Your task to perform on an android device: empty trash in the gmail app Image 0: 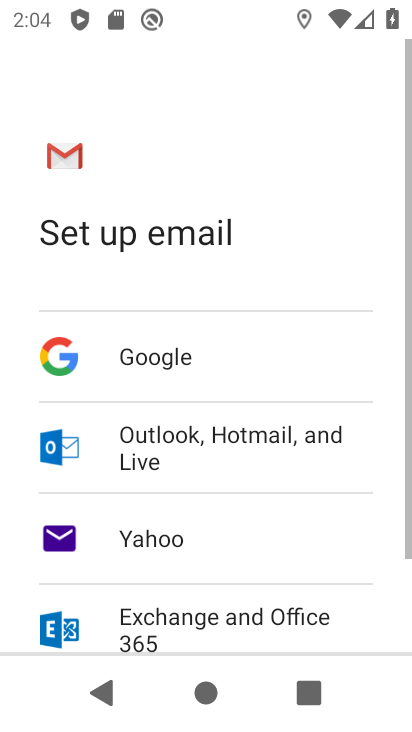
Step 0: press home button
Your task to perform on an android device: empty trash in the gmail app Image 1: 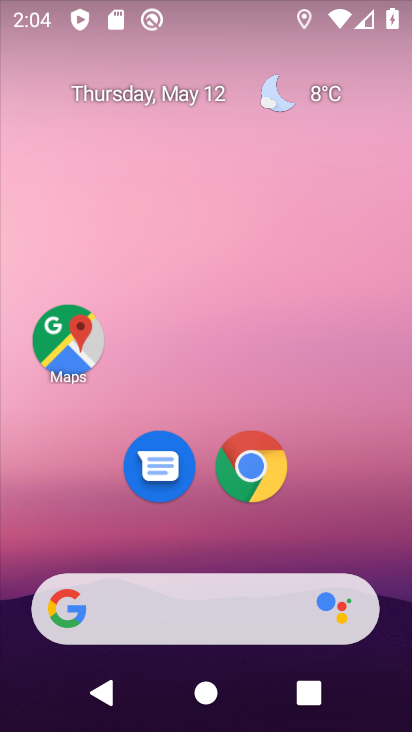
Step 1: drag from (318, 521) to (180, 126)
Your task to perform on an android device: empty trash in the gmail app Image 2: 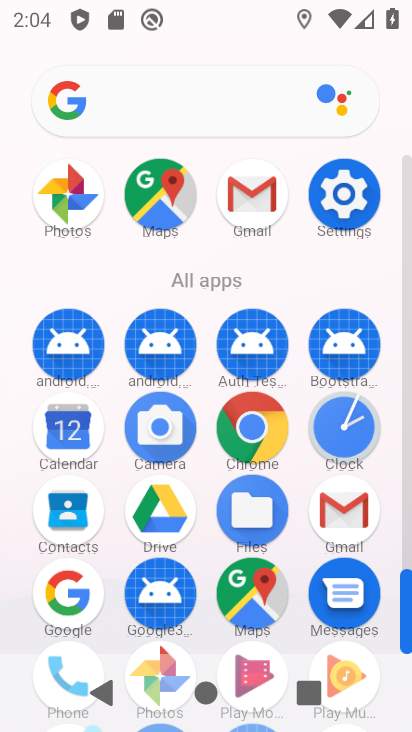
Step 2: click (259, 213)
Your task to perform on an android device: empty trash in the gmail app Image 3: 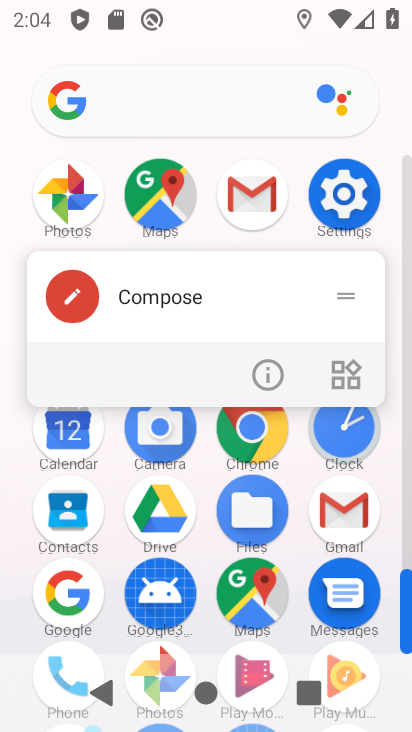
Step 3: click (256, 197)
Your task to perform on an android device: empty trash in the gmail app Image 4: 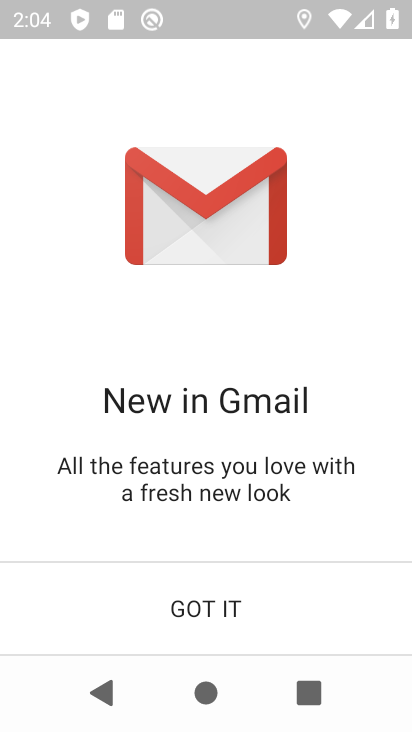
Step 4: click (215, 605)
Your task to perform on an android device: empty trash in the gmail app Image 5: 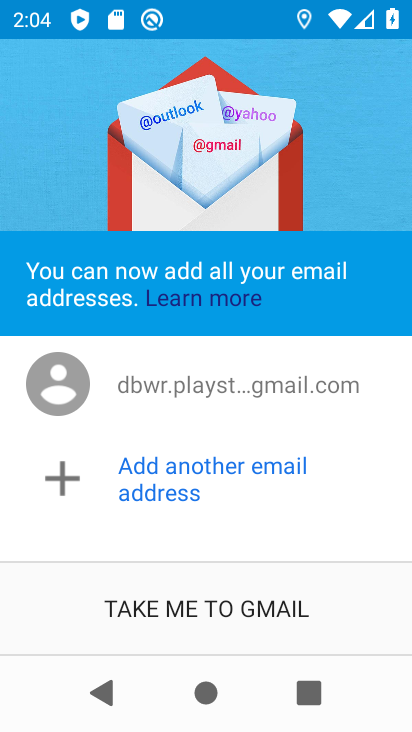
Step 5: click (218, 607)
Your task to perform on an android device: empty trash in the gmail app Image 6: 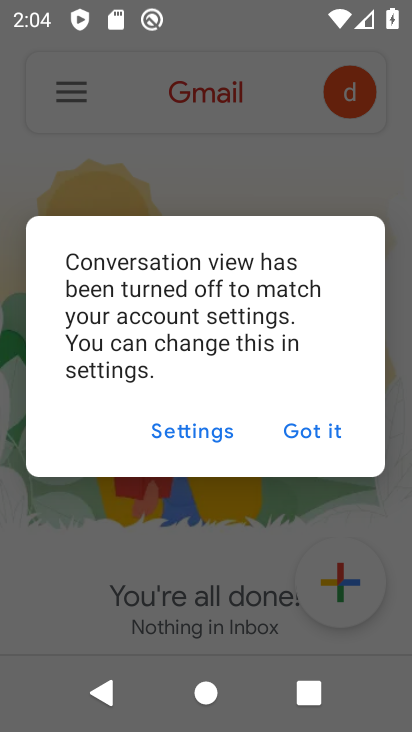
Step 6: click (305, 432)
Your task to perform on an android device: empty trash in the gmail app Image 7: 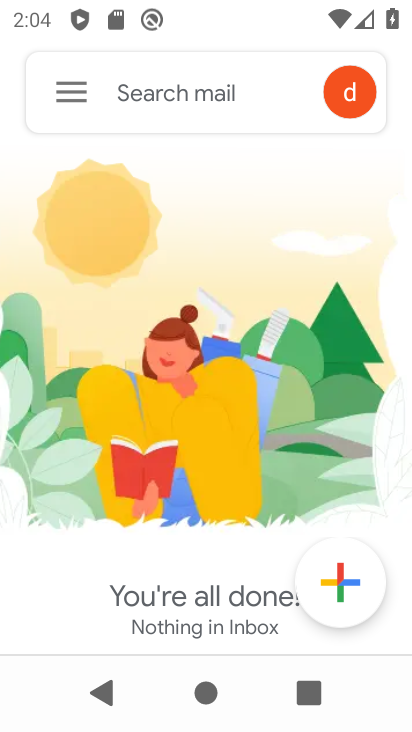
Step 7: click (78, 95)
Your task to perform on an android device: empty trash in the gmail app Image 8: 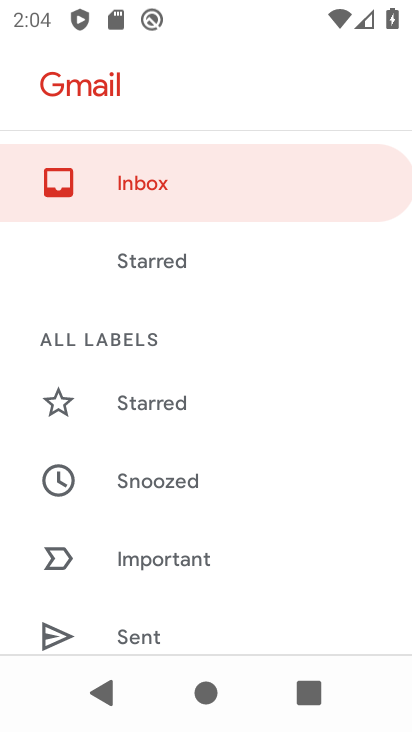
Step 8: drag from (219, 599) to (221, 128)
Your task to perform on an android device: empty trash in the gmail app Image 9: 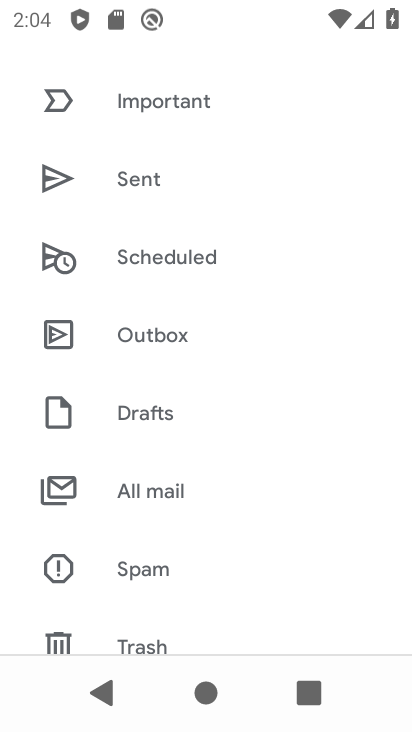
Step 9: drag from (216, 607) to (225, 279)
Your task to perform on an android device: empty trash in the gmail app Image 10: 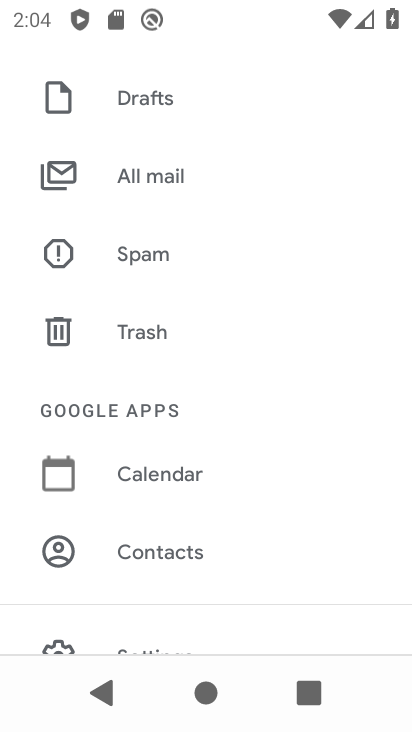
Step 10: click (160, 326)
Your task to perform on an android device: empty trash in the gmail app Image 11: 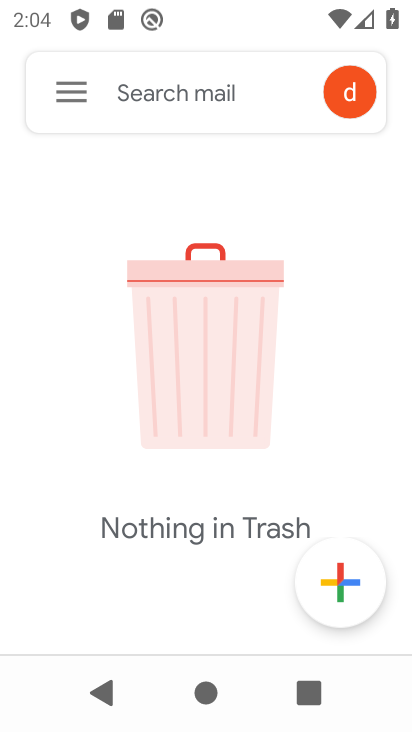
Step 11: task complete